Your task to perform on an android device: Search for Mexican restaurants on Maps Image 0: 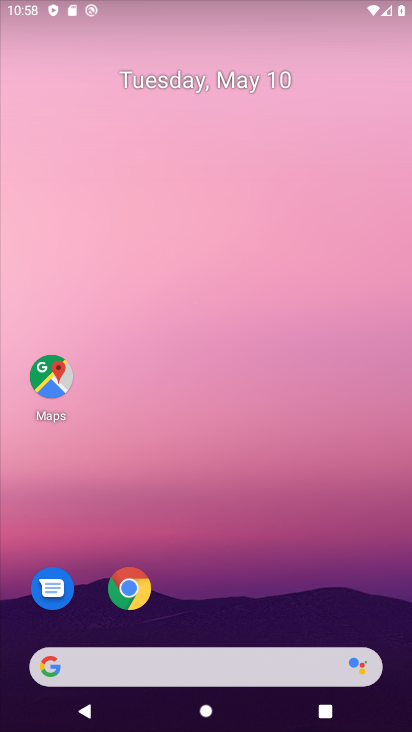
Step 0: press back button
Your task to perform on an android device: Search for Mexican restaurants on Maps Image 1: 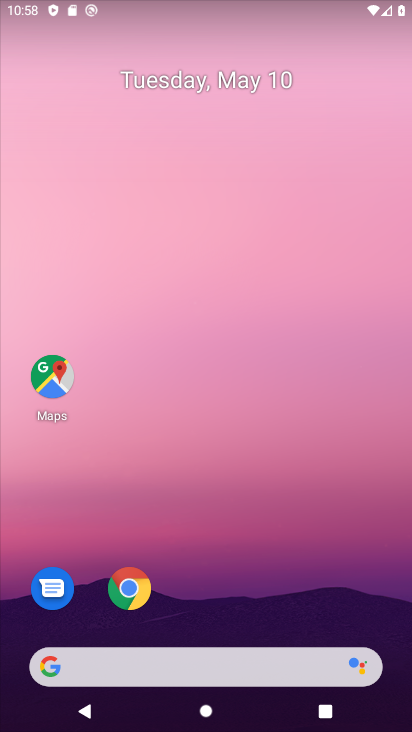
Step 1: click (193, 5)
Your task to perform on an android device: Search for Mexican restaurants on Maps Image 2: 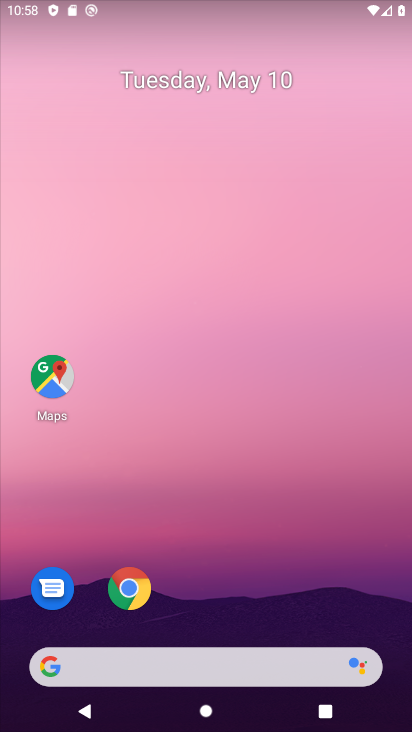
Step 2: drag from (277, 418) to (176, 49)
Your task to perform on an android device: Search for Mexican restaurants on Maps Image 3: 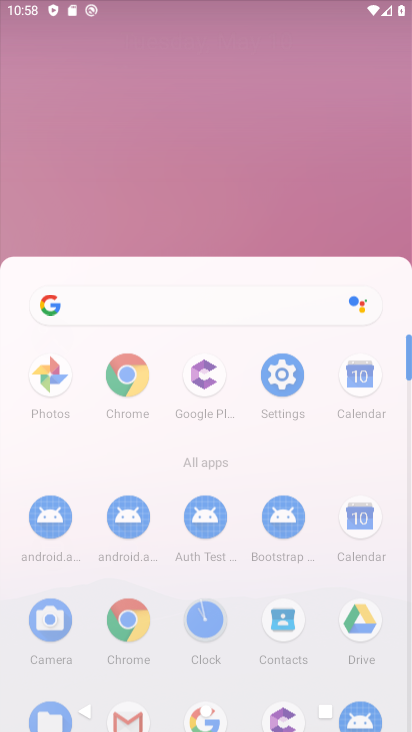
Step 3: drag from (210, 282) to (148, 131)
Your task to perform on an android device: Search for Mexican restaurants on Maps Image 4: 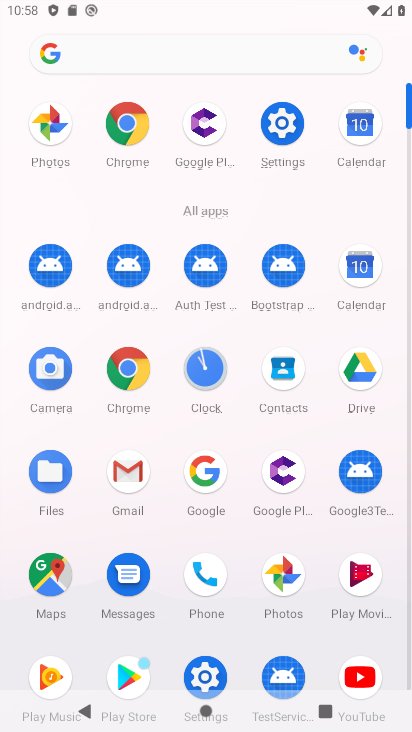
Step 4: click (52, 574)
Your task to perform on an android device: Search for Mexican restaurants on Maps Image 5: 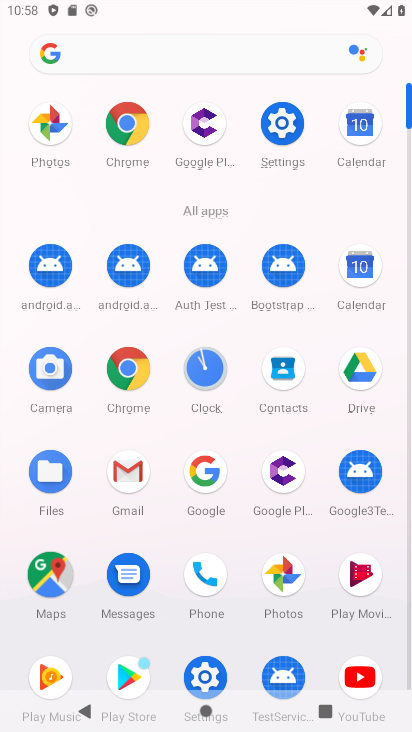
Step 5: click (52, 574)
Your task to perform on an android device: Search for Mexican restaurants on Maps Image 6: 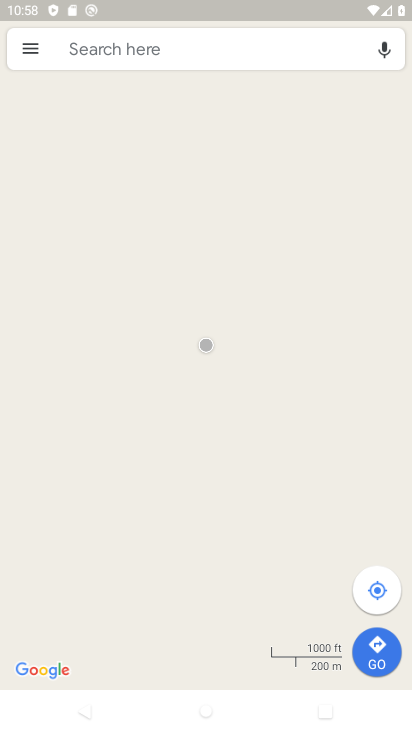
Step 6: click (86, 32)
Your task to perform on an android device: Search for Mexican restaurants on Maps Image 7: 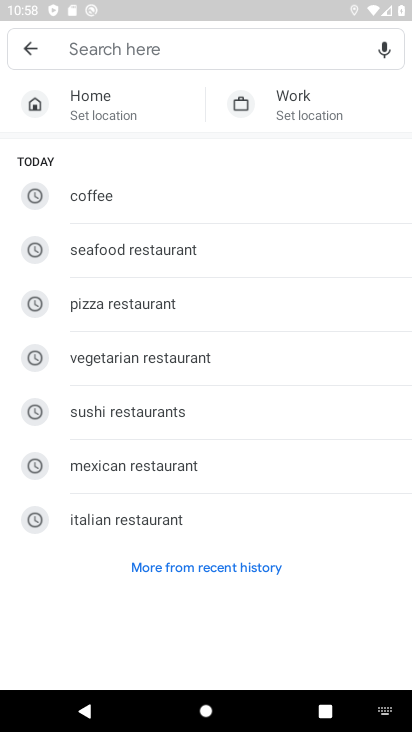
Step 7: type "mexican restaurants"
Your task to perform on an android device: Search for Mexican restaurants on Maps Image 8: 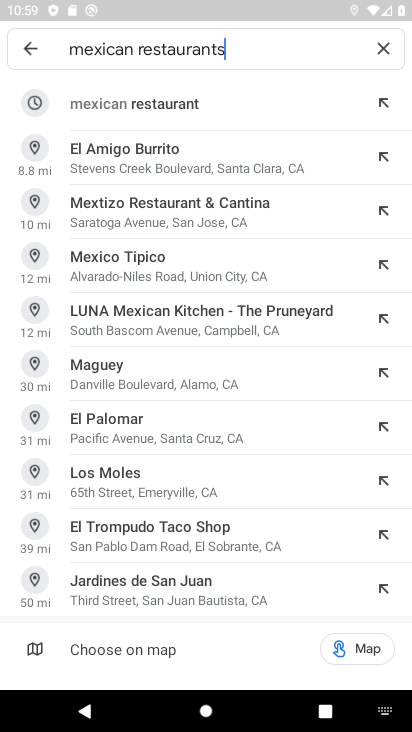
Step 8: task complete